Your task to perform on an android device: change timer sound Image 0: 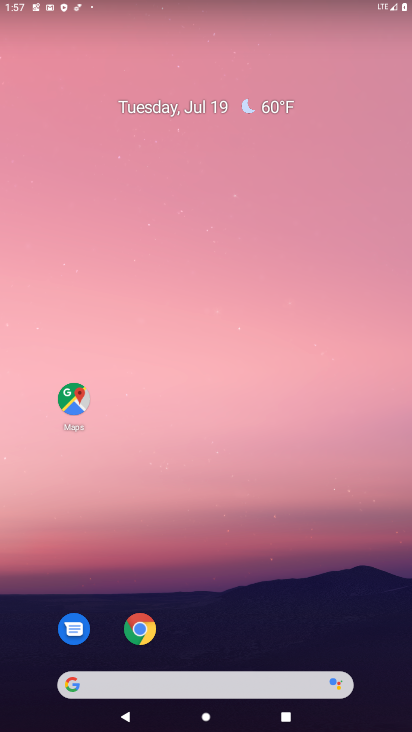
Step 0: drag from (299, 268) to (277, 160)
Your task to perform on an android device: change timer sound Image 1: 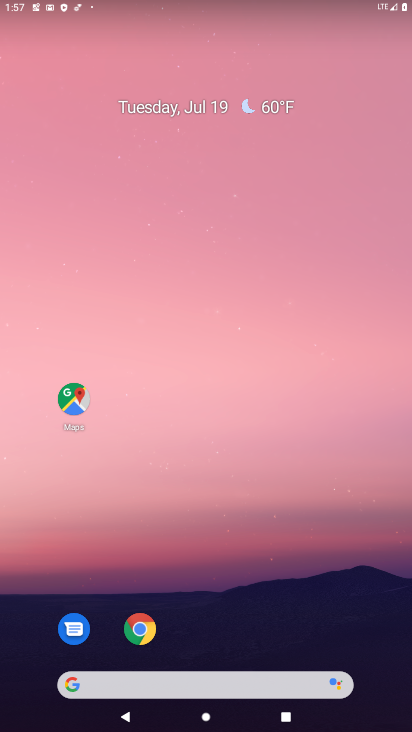
Step 1: drag from (346, 647) to (310, 71)
Your task to perform on an android device: change timer sound Image 2: 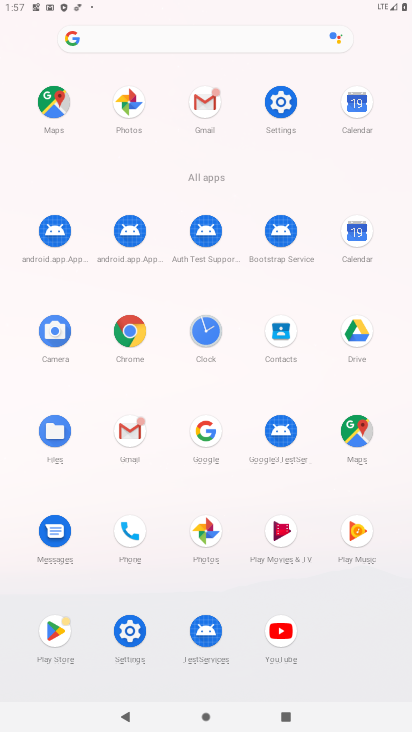
Step 2: click (206, 329)
Your task to perform on an android device: change timer sound Image 3: 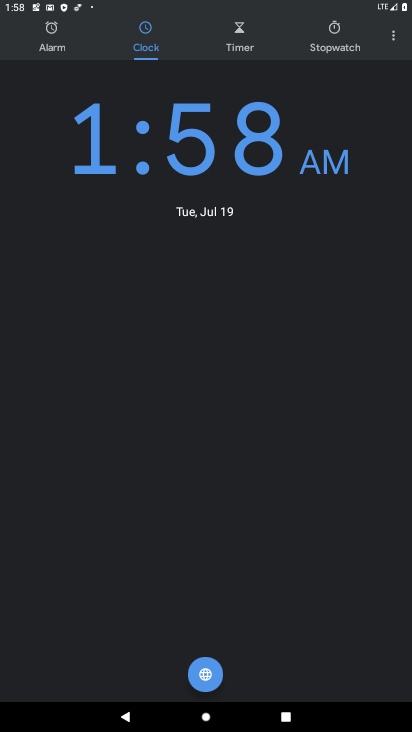
Step 3: click (393, 38)
Your task to perform on an android device: change timer sound Image 4: 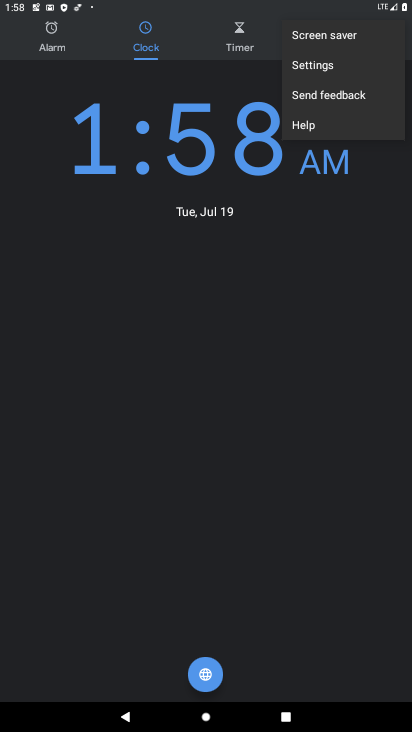
Step 4: click (322, 63)
Your task to perform on an android device: change timer sound Image 5: 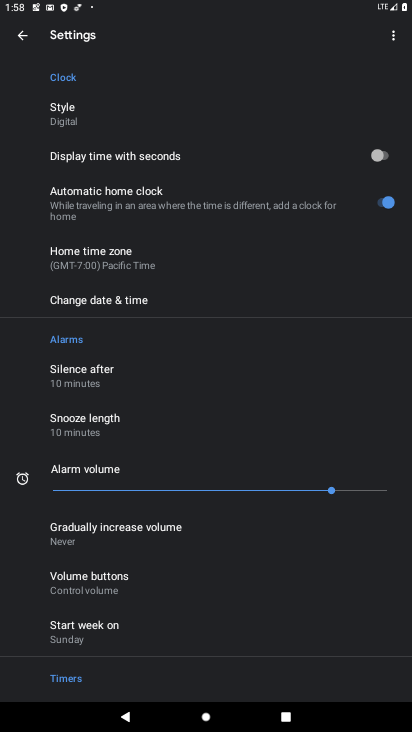
Step 5: drag from (157, 620) to (199, 267)
Your task to perform on an android device: change timer sound Image 6: 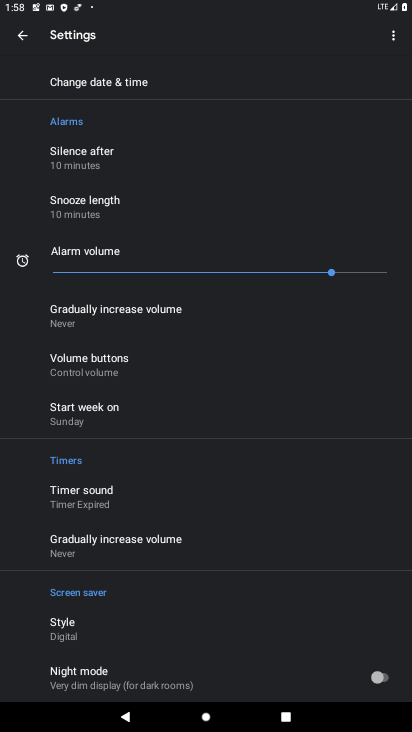
Step 6: click (84, 499)
Your task to perform on an android device: change timer sound Image 7: 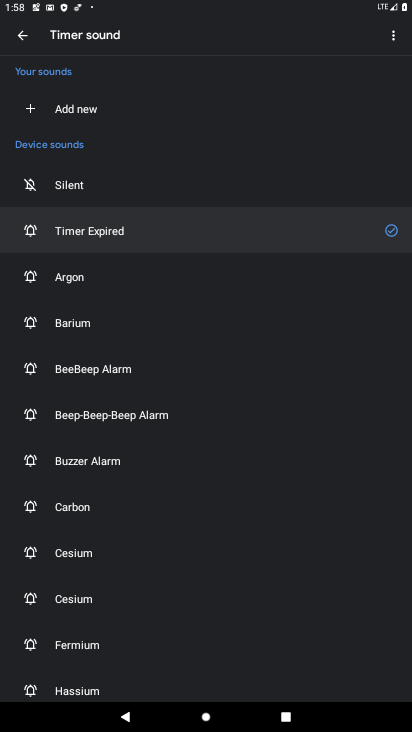
Step 7: click (72, 462)
Your task to perform on an android device: change timer sound Image 8: 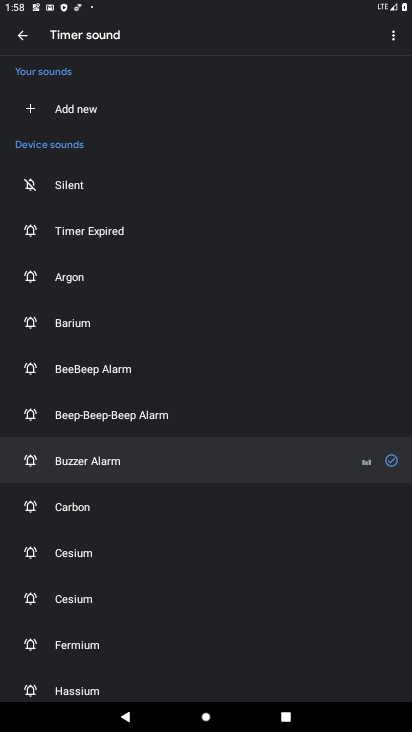
Step 8: task complete